Your task to perform on an android device: Open Maps and search for coffee Image 0: 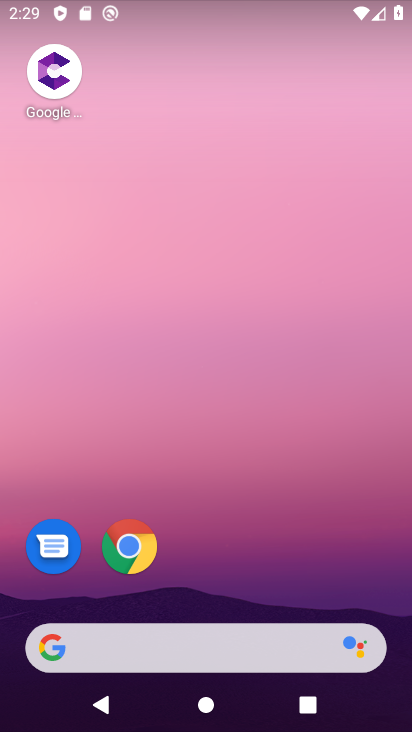
Step 0: click (209, 150)
Your task to perform on an android device: Open Maps and search for coffee Image 1: 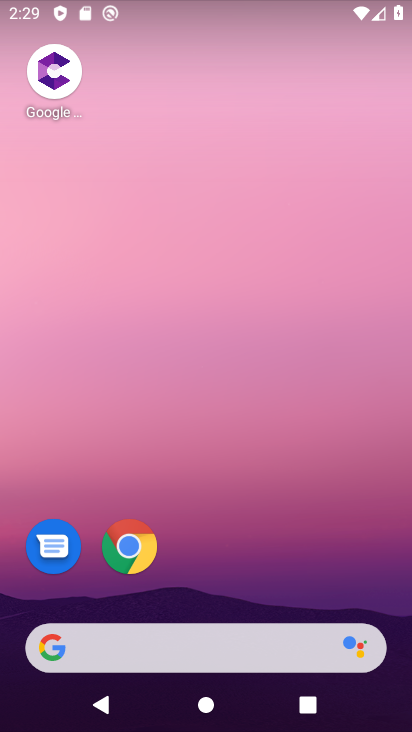
Step 1: drag from (222, 579) to (233, 154)
Your task to perform on an android device: Open Maps and search for coffee Image 2: 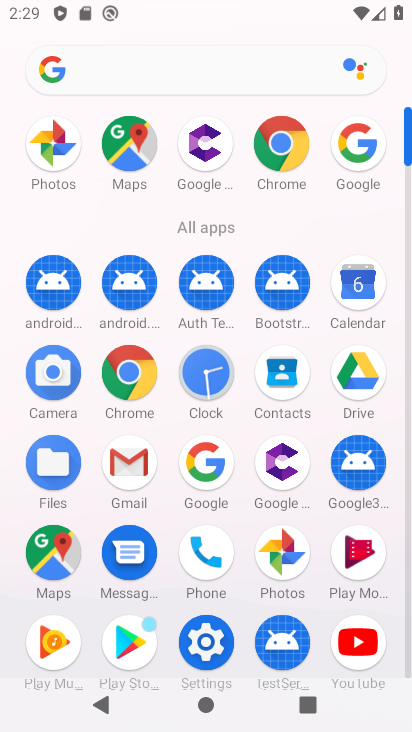
Step 2: click (68, 558)
Your task to perform on an android device: Open Maps and search for coffee Image 3: 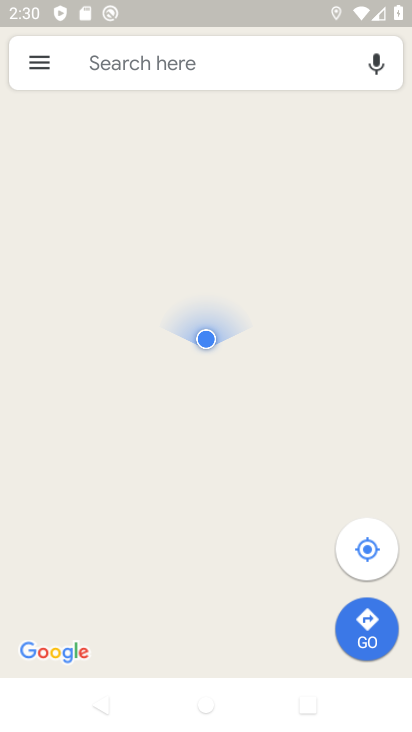
Step 3: click (134, 63)
Your task to perform on an android device: Open Maps and search for coffee Image 4: 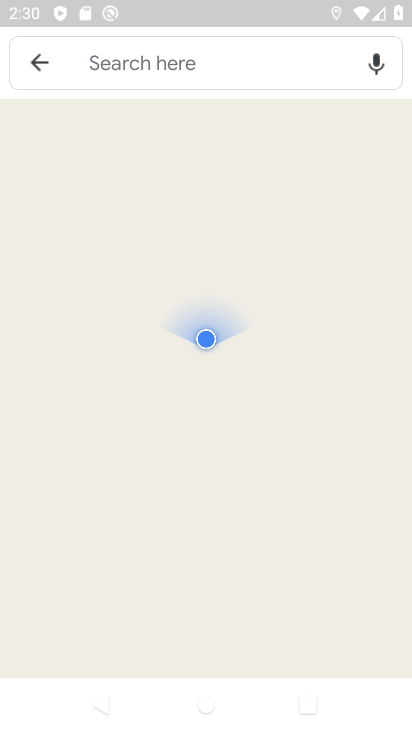
Step 4: click (146, 74)
Your task to perform on an android device: Open Maps and search for coffee Image 5: 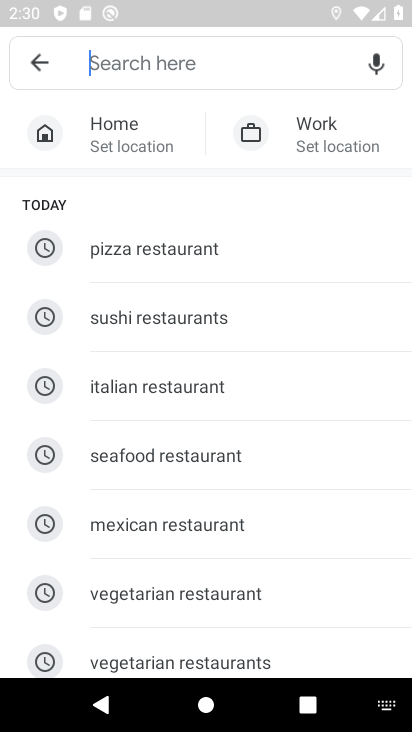
Step 5: type "coffee"
Your task to perform on an android device: Open Maps and search for coffee Image 6: 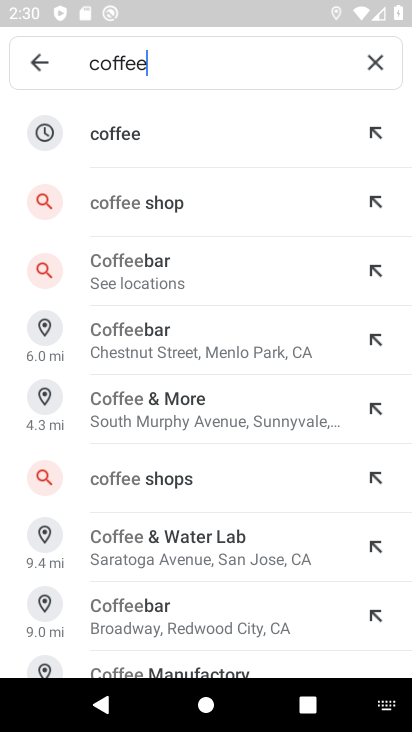
Step 6: click (196, 126)
Your task to perform on an android device: Open Maps and search for coffee Image 7: 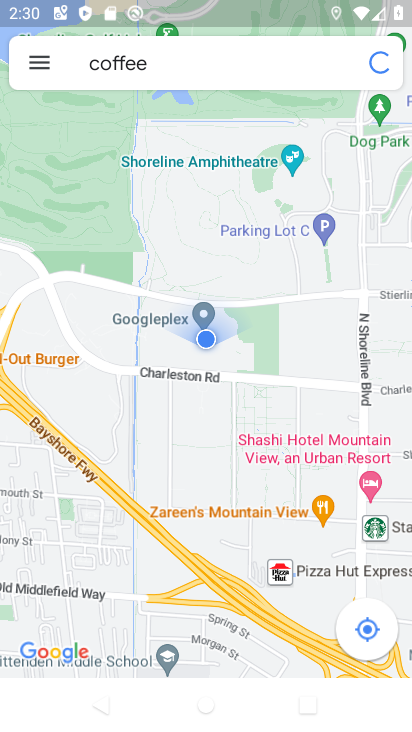
Step 7: task complete